Your task to perform on an android device: clear all cookies in the chrome app Image 0: 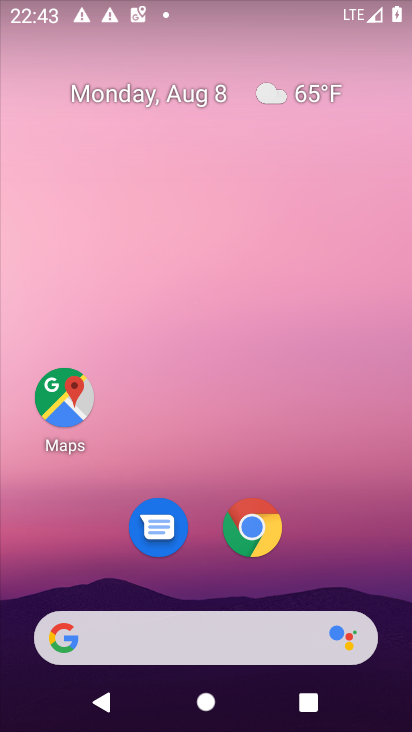
Step 0: click (243, 535)
Your task to perform on an android device: clear all cookies in the chrome app Image 1: 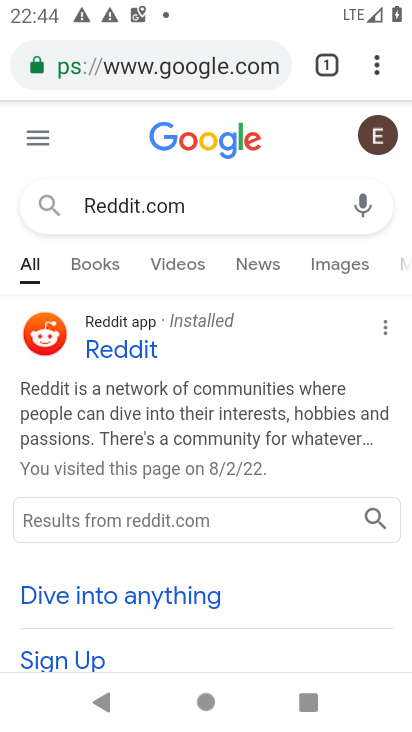
Step 1: click (373, 64)
Your task to perform on an android device: clear all cookies in the chrome app Image 2: 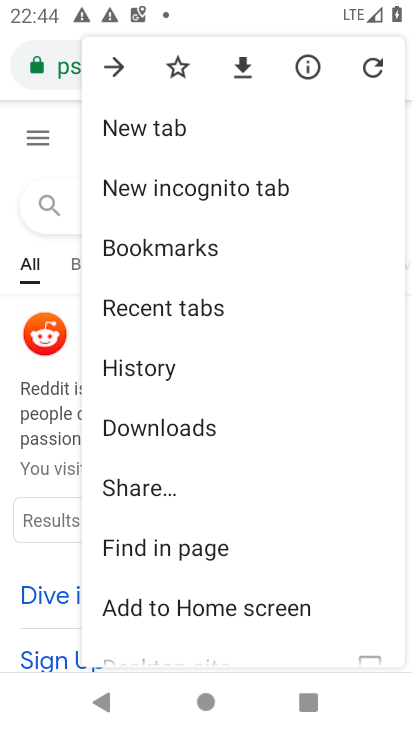
Step 2: click (296, 319)
Your task to perform on an android device: clear all cookies in the chrome app Image 3: 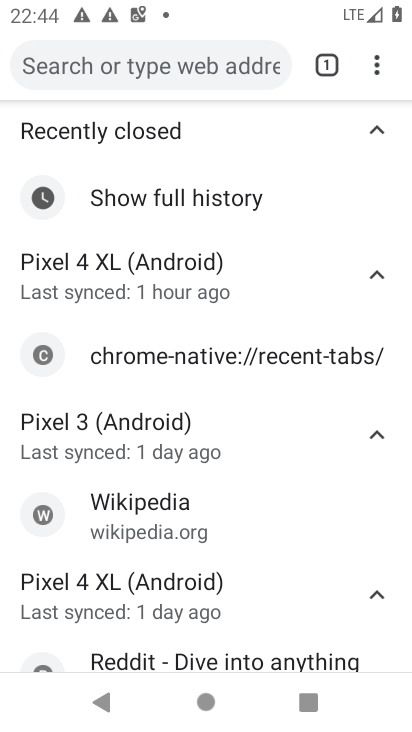
Step 3: click (373, 64)
Your task to perform on an android device: clear all cookies in the chrome app Image 4: 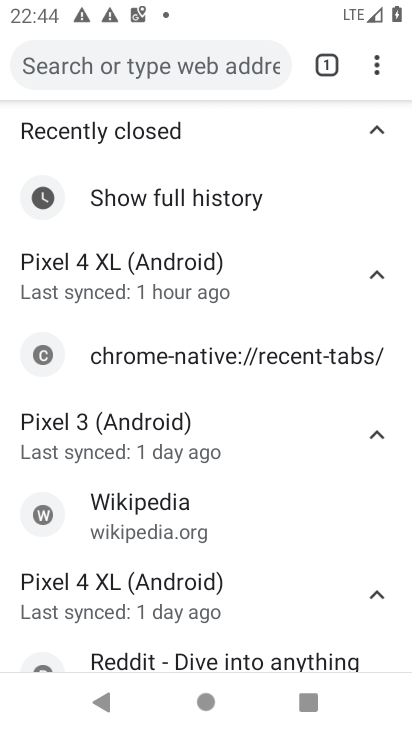
Step 4: click (369, 65)
Your task to perform on an android device: clear all cookies in the chrome app Image 5: 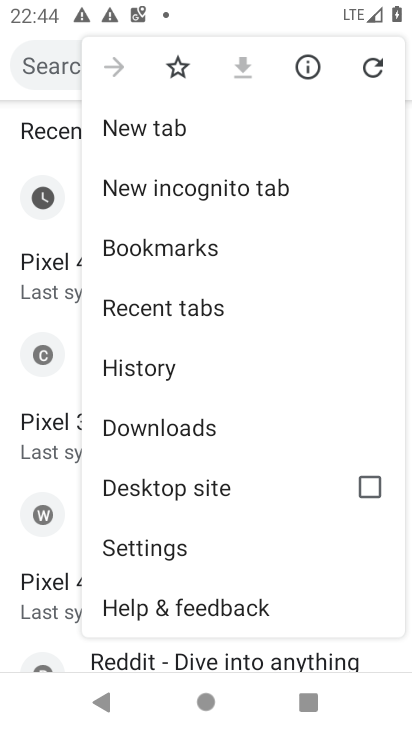
Step 5: click (129, 367)
Your task to perform on an android device: clear all cookies in the chrome app Image 6: 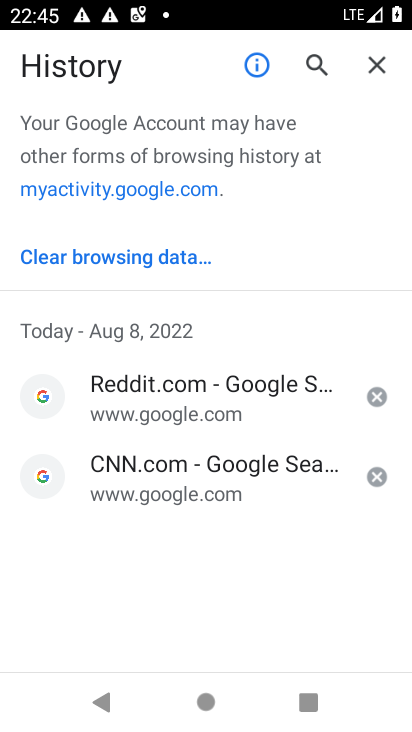
Step 6: click (169, 253)
Your task to perform on an android device: clear all cookies in the chrome app Image 7: 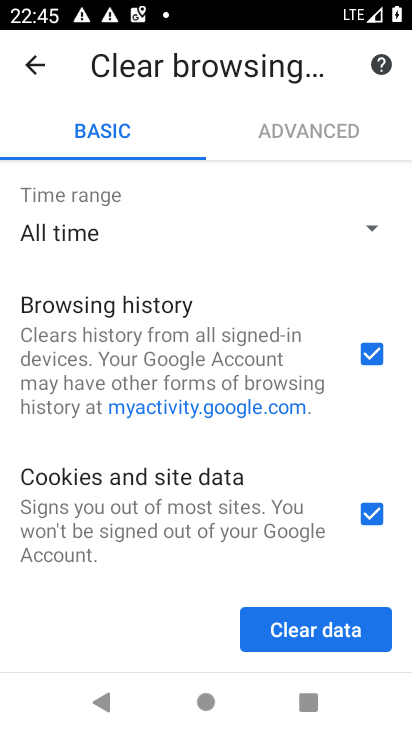
Step 7: click (324, 632)
Your task to perform on an android device: clear all cookies in the chrome app Image 8: 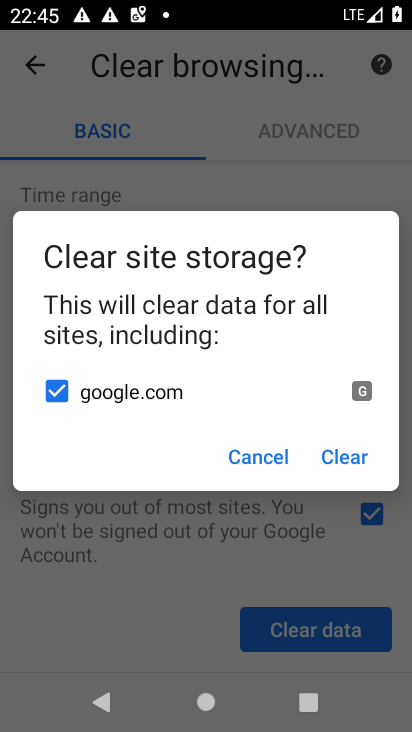
Step 8: click (347, 456)
Your task to perform on an android device: clear all cookies in the chrome app Image 9: 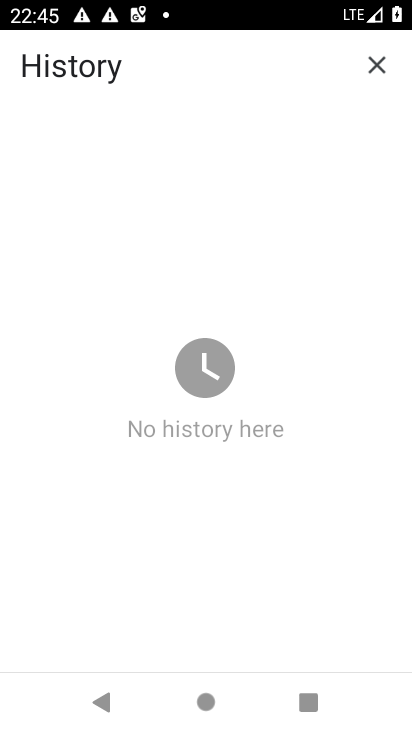
Step 9: task complete